Your task to perform on an android device: turn on sleep mode Image 0: 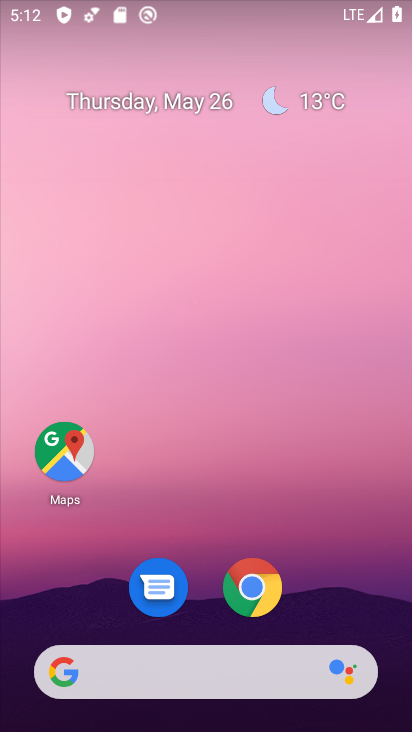
Step 0: click (223, 208)
Your task to perform on an android device: turn on sleep mode Image 1: 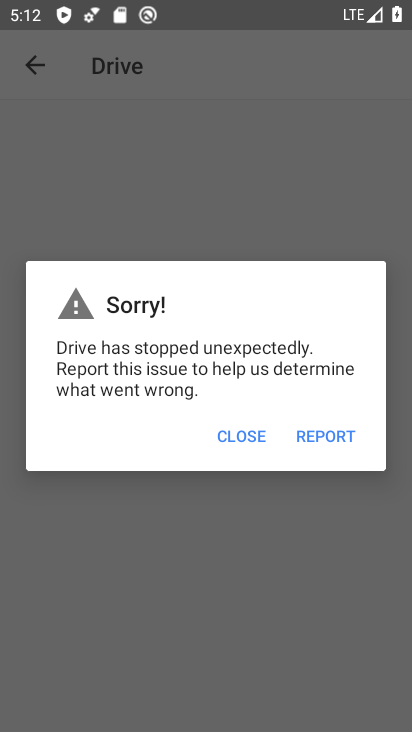
Step 1: click (247, 432)
Your task to perform on an android device: turn on sleep mode Image 2: 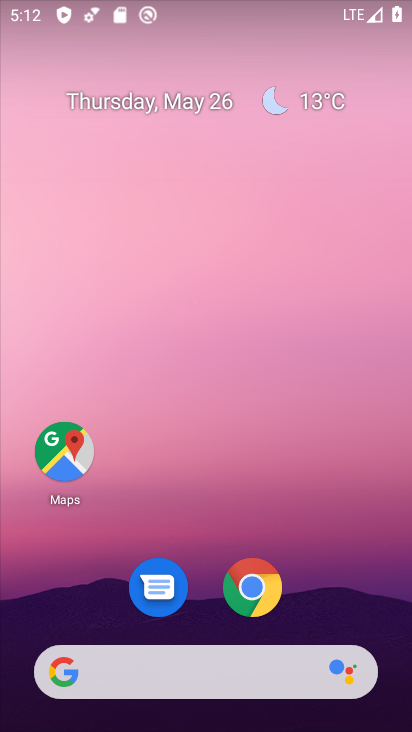
Step 2: drag from (236, 719) to (233, 242)
Your task to perform on an android device: turn on sleep mode Image 3: 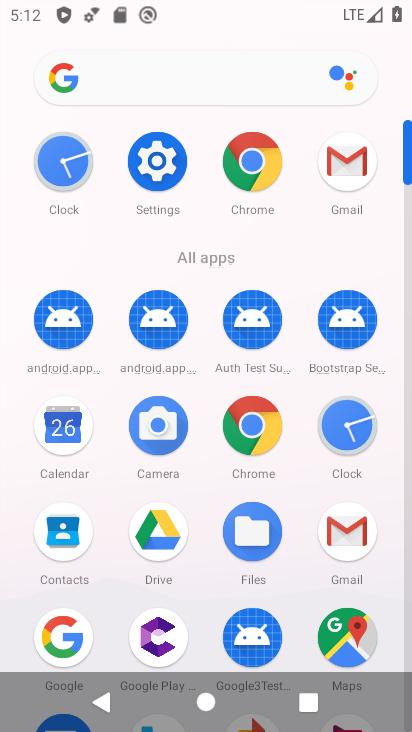
Step 3: click (160, 163)
Your task to perform on an android device: turn on sleep mode Image 4: 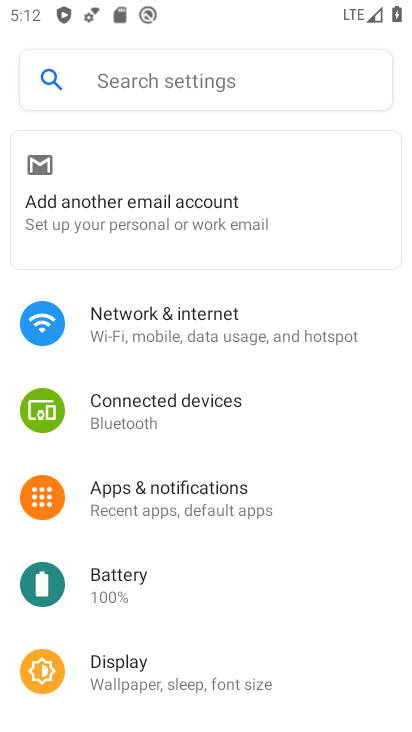
Step 4: task complete